Your task to perform on an android device: toggle location history Image 0: 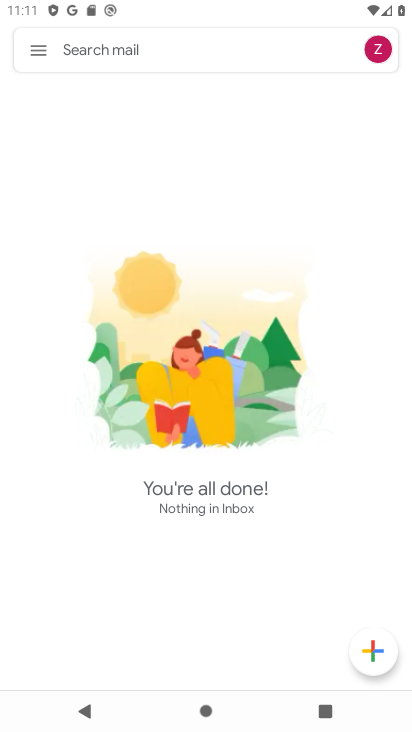
Step 0: press home button
Your task to perform on an android device: toggle location history Image 1: 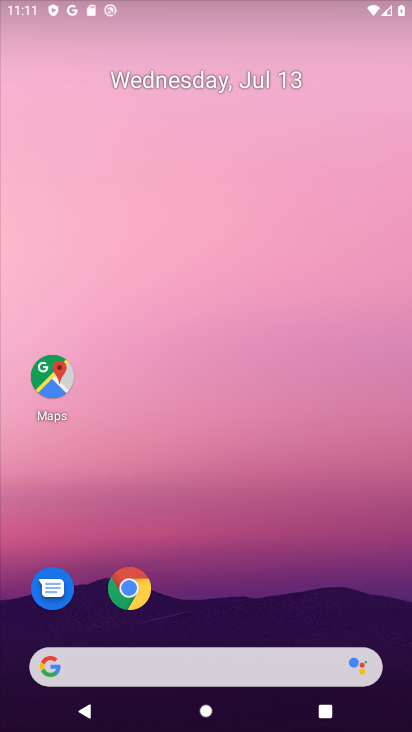
Step 1: drag from (222, 619) to (240, 156)
Your task to perform on an android device: toggle location history Image 2: 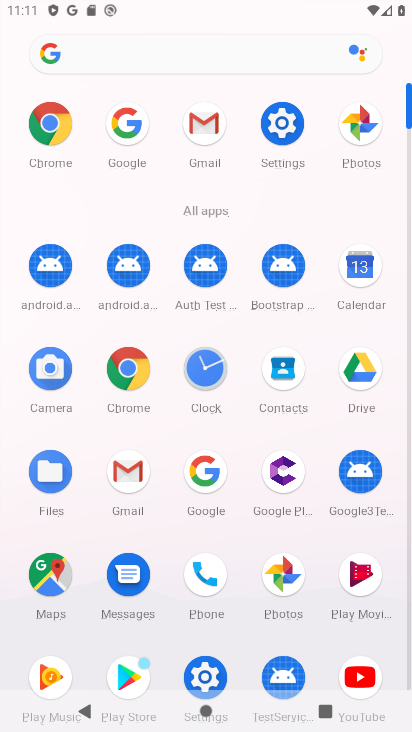
Step 2: click (285, 126)
Your task to perform on an android device: toggle location history Image 3: 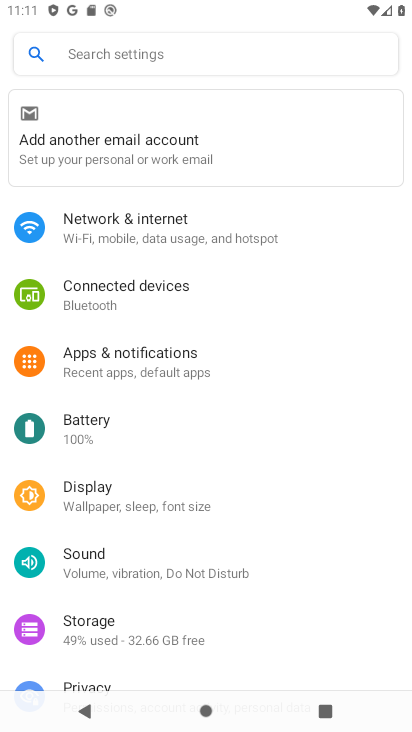
Step 3: drag from (181, 640) to (175, 215)
Your task to perform on an android device: toggle location history Image 4: 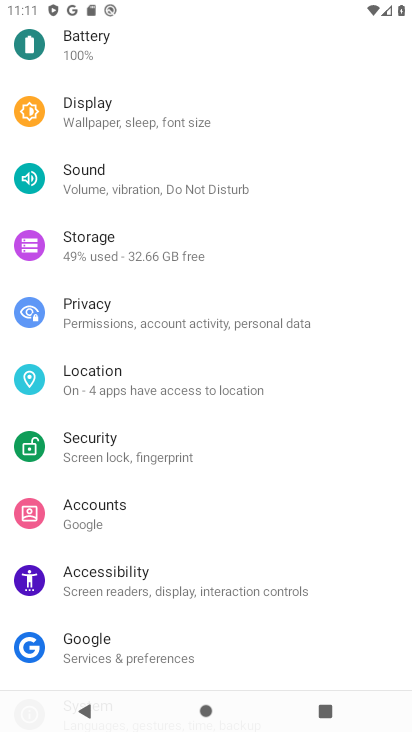
Step 4: click (128, 377)
Your task to perform on an android device: toggle location history Image 5: 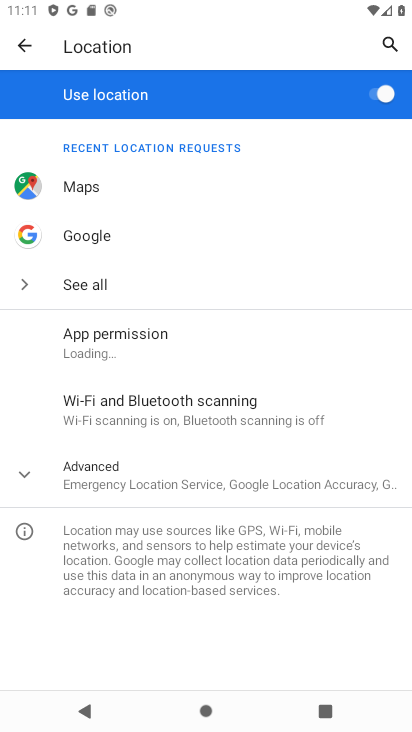
Step 5: click (117, 470)
Your task to perform on an android device: toggle location history Image 6: 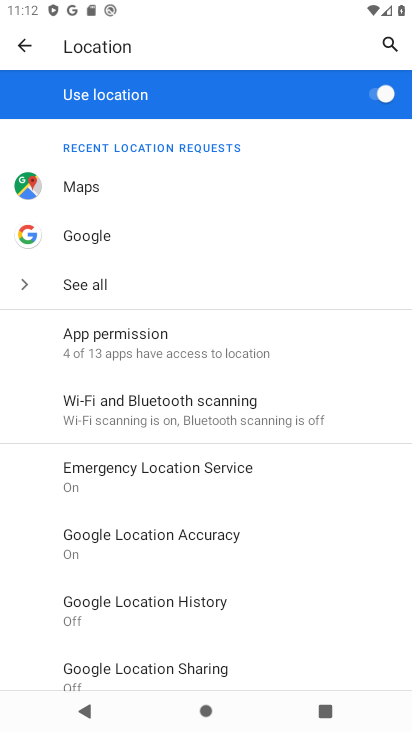
Step 6: click (166, 600)
Your task to perform on an android device: toggle location history Image 7: 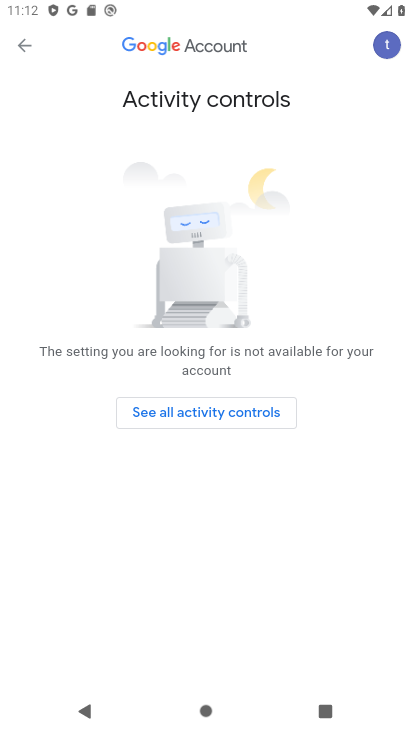
Step 7: task complete